Your task to perform on an android device: delete browsing data in the chrome app Image 0: 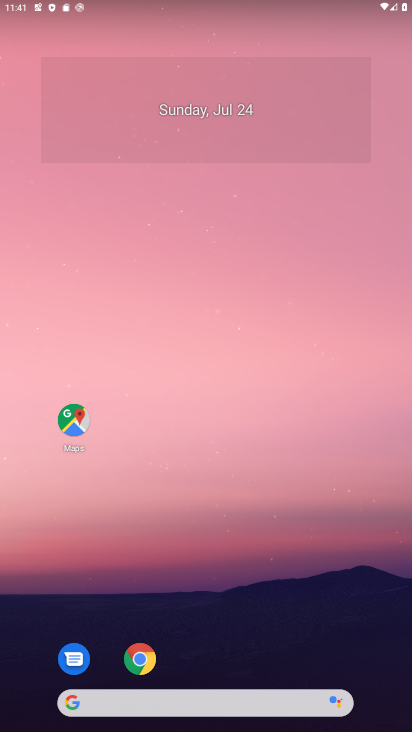
Step 0: click (134, 658)
Your task to perform on an android device: delete browsing data in the chrome app Image 1: 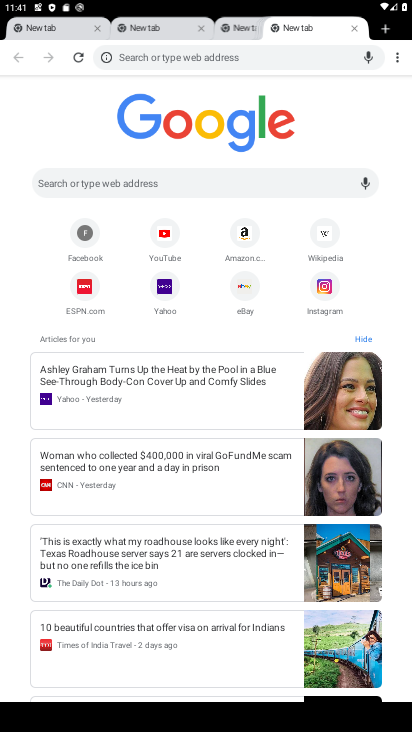
Step 1: click (396, 55)
Your task to perform on an android device: delete browsing data in the chrome app Image 2: 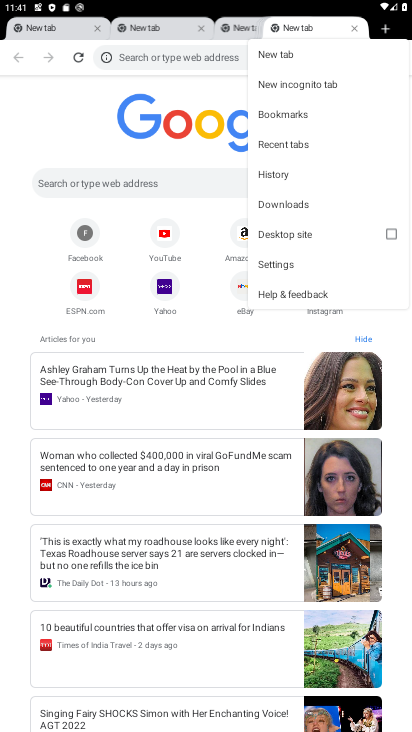
Step 2: click (279, 263)
Your task to perform on an android device: delete browsing data in the chrome app Image 3: 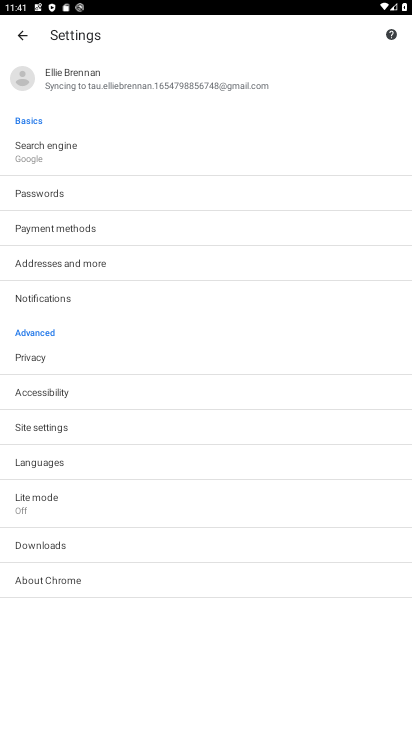
Step 3: click (24, 29)
Your task to perform on an android device: delete browsing data in the chrome app Image 4: 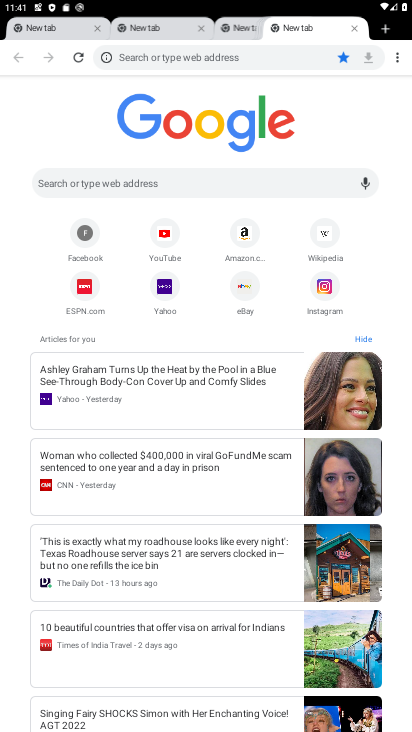
Step 4: click (400, 56)
Your task to perform on an android device: delete browsing data in the chrome app Image 5: 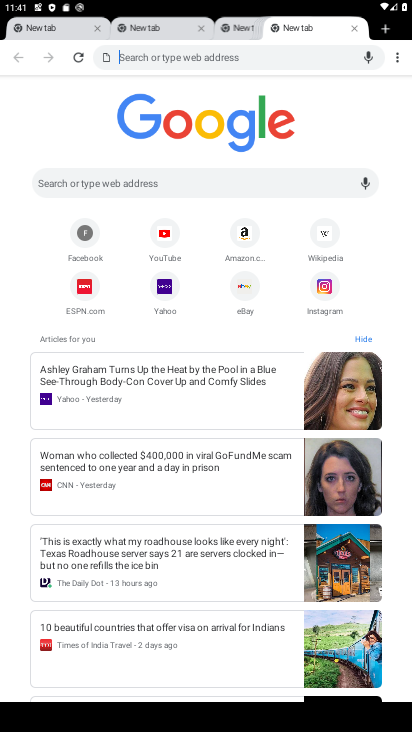
Step 5: task complete